Your task to perform on an android device: turn pop-ups on in chrome Image 0: 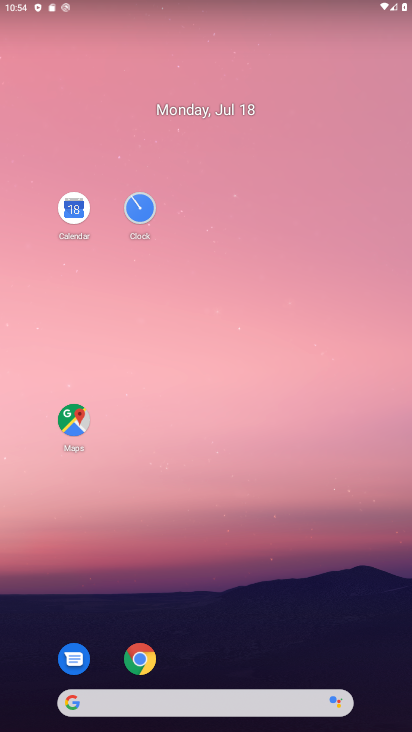
Step 0: click (141, 660)
Your task to perform on an android device: turn pop-ups on in chrome Image 1: 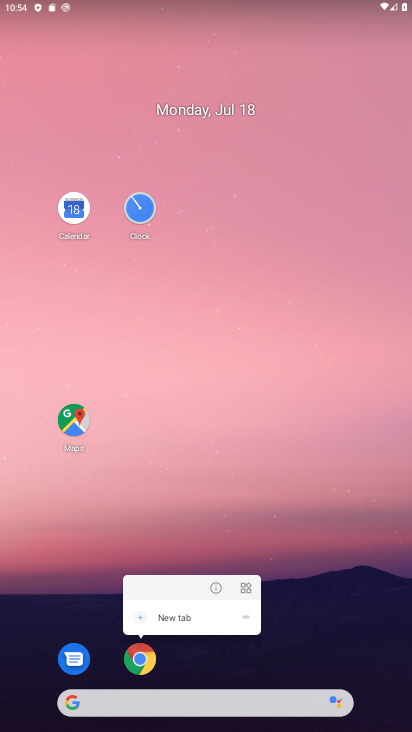
Step 1: click (141, 657)
Your task to perform on an android device: turn pop-ups on in chrome Image 2: 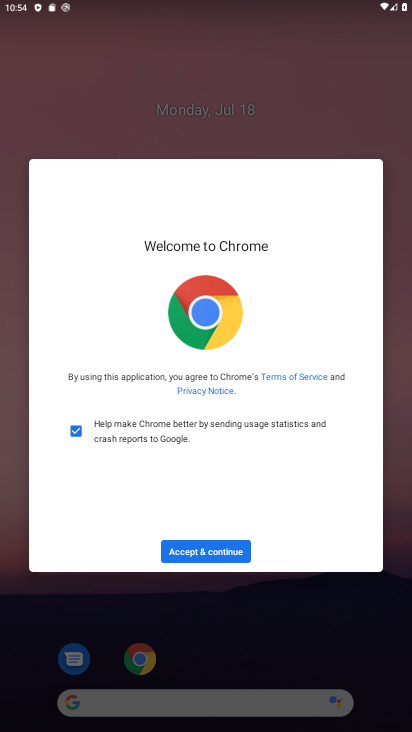
Step 2: click (211, 544)
Your task to perform on an android device: turn pop-ups on in chrome Image 3: 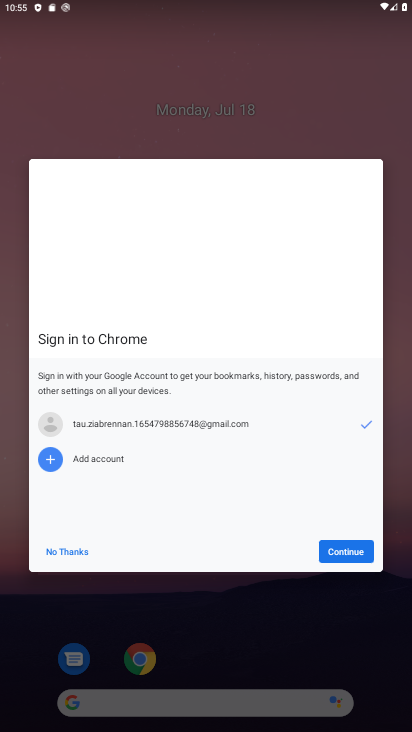
Step 3: click (231, 559)
Your task to perform on an android device: turn pop-ups on in chrome Image 4: 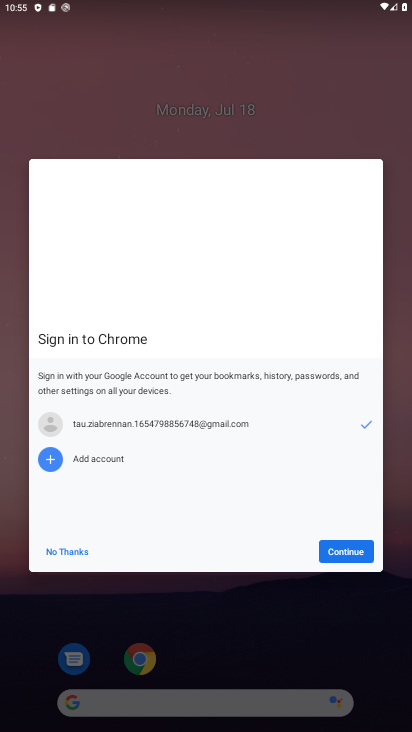
Step 4: click (360, 545)
Your task to perform on an android device: turn pop-ups on in chrome Image 5: 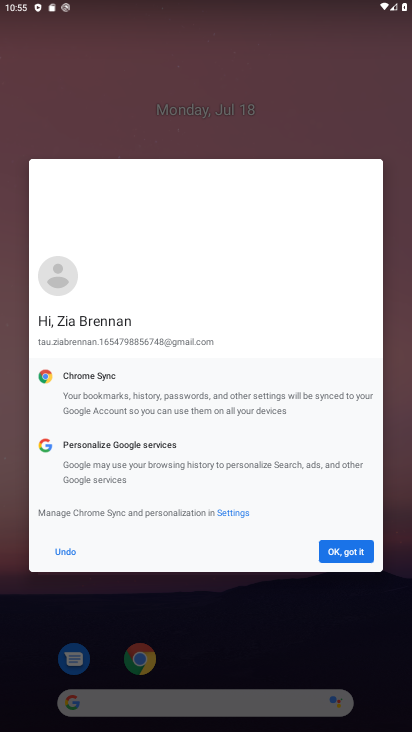
Step 5: click (360, 545)
Your task to perform on an android device: turn pop-ups on in chrome Image 6: 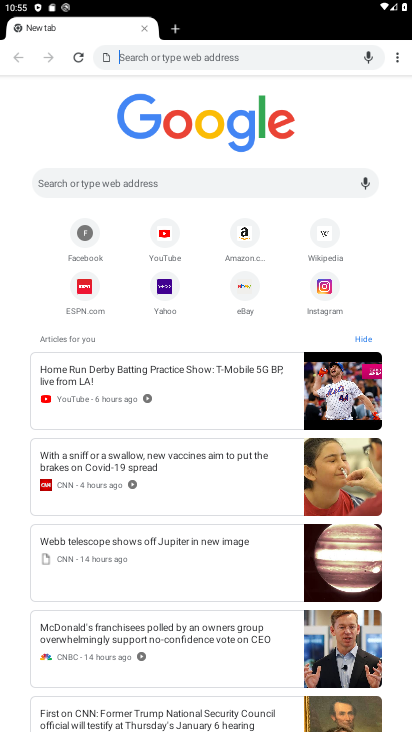
Step 6: click (406, 61)
Your task to perform on an android device: turn pop-ups on in chrome Image 7: 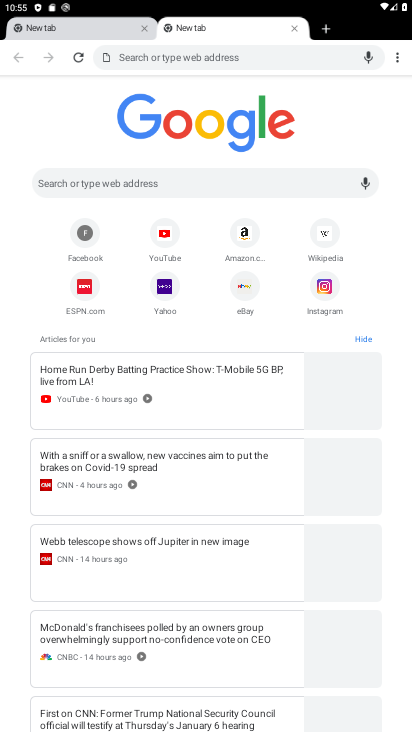
Step 7: click (406, 61)
Your task to perform on an android device: turn pop-ups on in chrome Image 8: 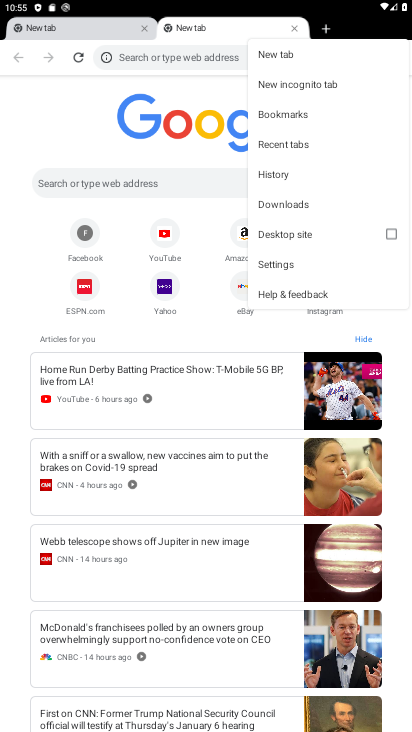
Step 8: click (315, 267)
Your task to perform on an android device: turn pop-ups on in chrome Image 9: 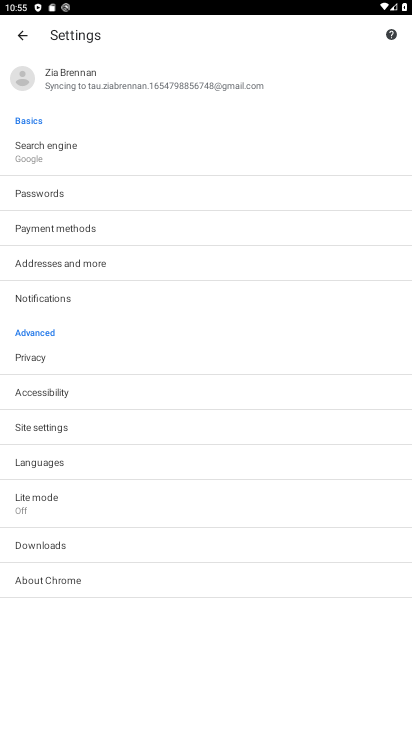
Step 9: click (66, 428)
Your task to perform on an android device: turn pop-ups on in chrome Image 10: 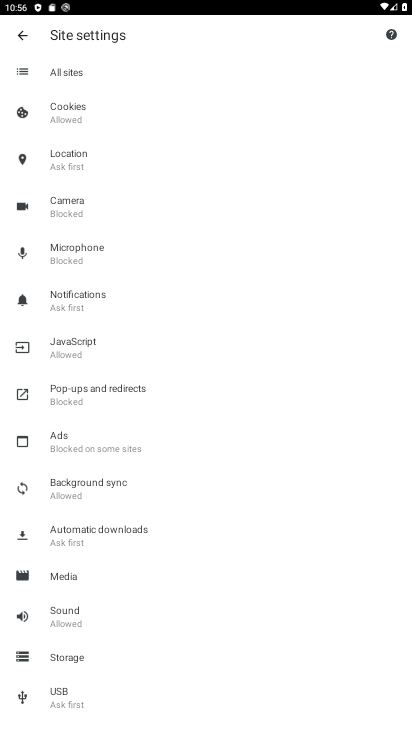
Step 10: click (98, 387)
Your task to perform on an android device: turn pop-ups on in chrome Image 11: 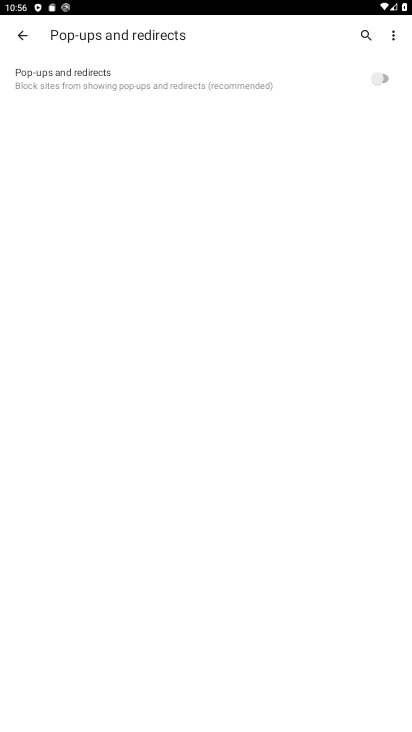
Step 11: click (380, 76)
Your task to perform on an android device: turn pop-ups on in chrome Image 12: 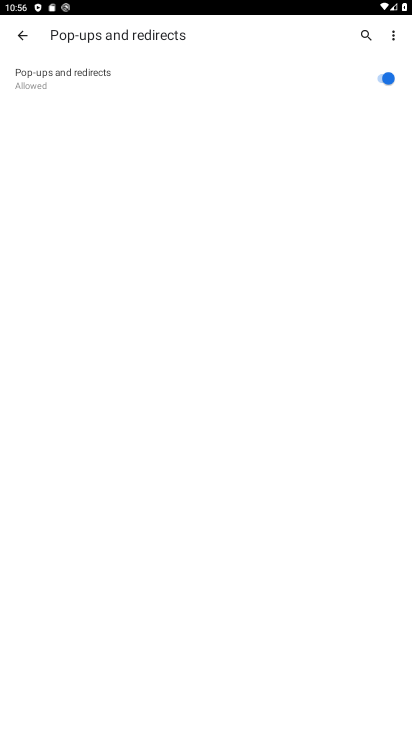
Step 12: task complete